Your task to perform on an android device: check data usage Image 0: 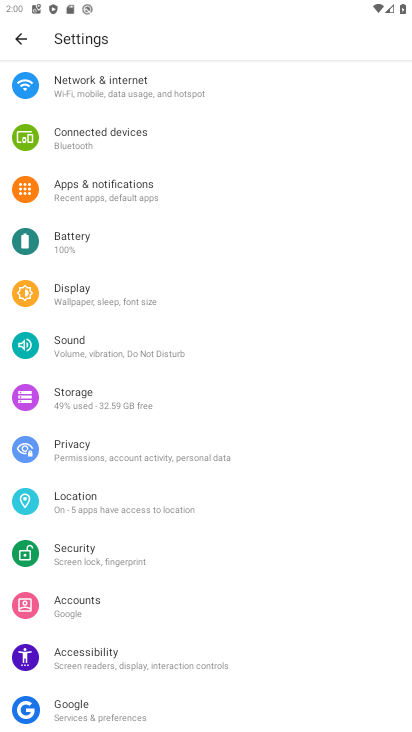
Step 0: click (65, 84)
Your task to perform on an android device: check data usage Image 1: 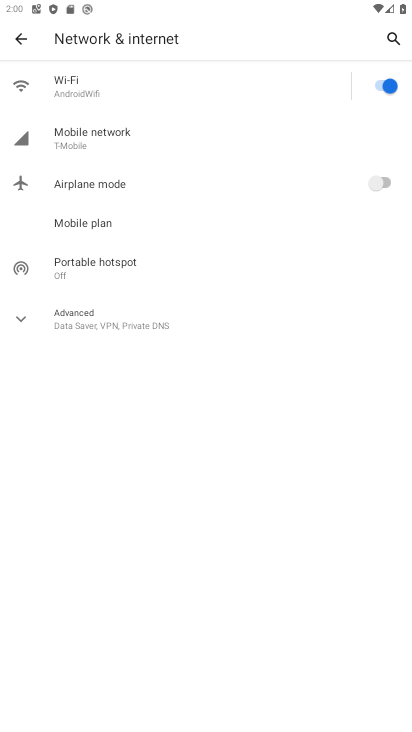
Step 1: click (85, 130)
Your task to perform on an android device: check data usage Image 2: 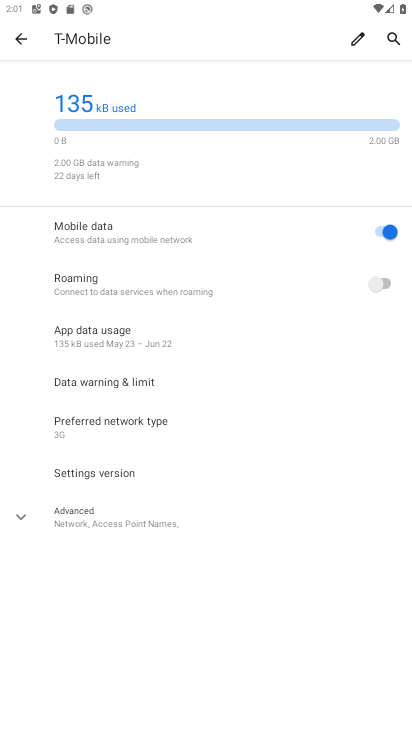
Step 2: task complete